Your task to perform on an android device: change text size in settings app Image 0: 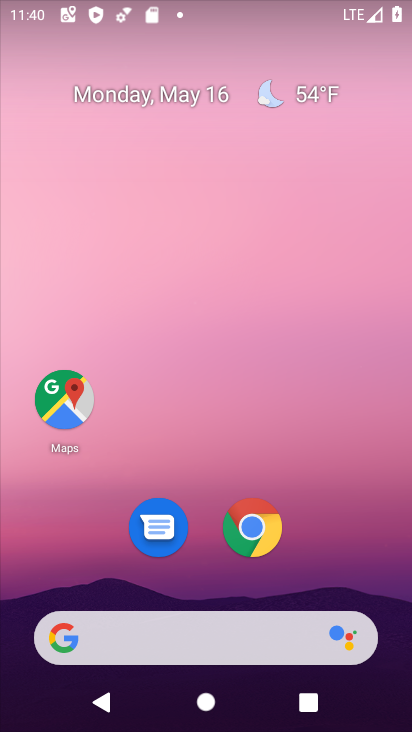
Step 0: drag from (215, 628) to (195, 235)
Your task to perform on an android device: change text size in settings app Image 1: 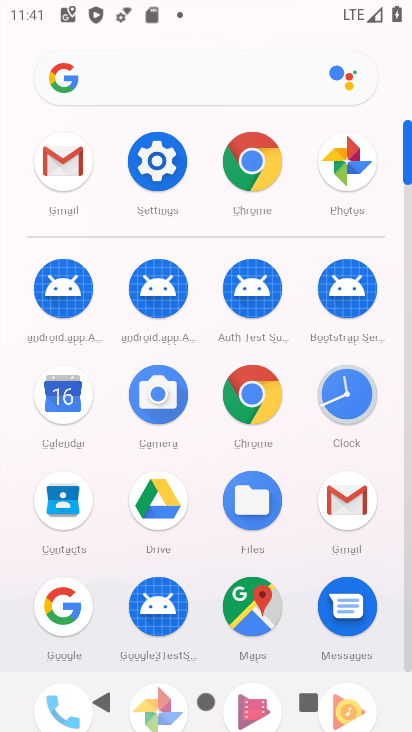
Step 1: click (160, 158)
Your task to perform on an android device: change text size in settings app Image 2: 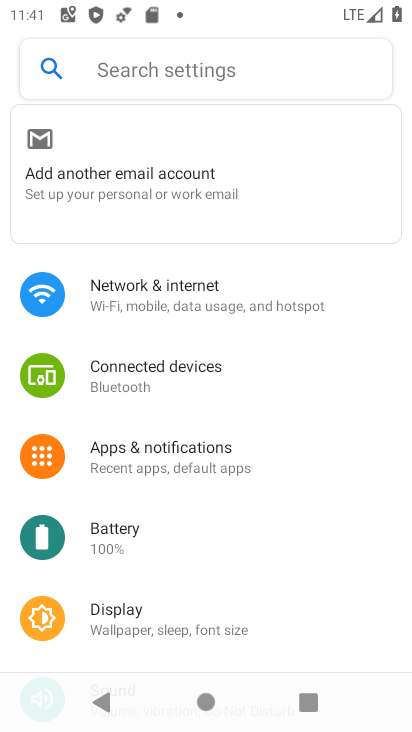
Step 2: click (178, 82)
Your task to perform on an android device: change text size in settings app Image 3: 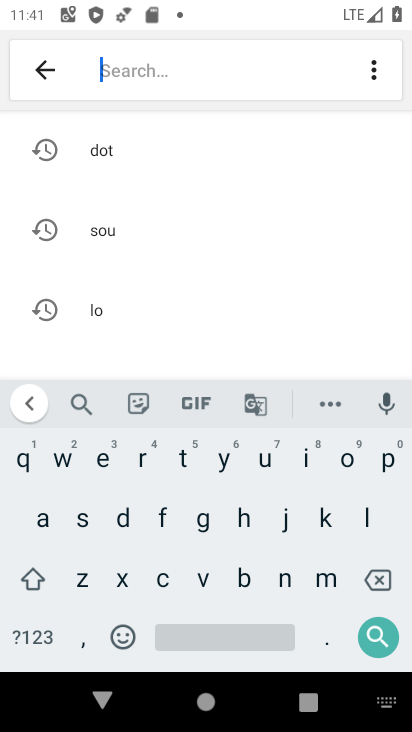
Step 3: click (86, 523)
Your task to perform on an android device: change text size in settings app Image 4: 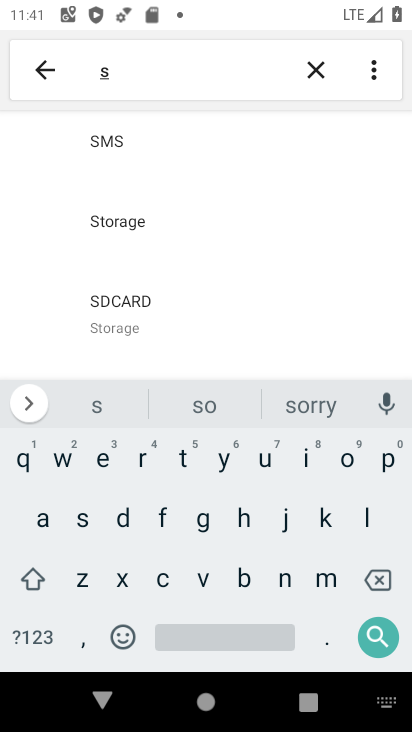
Step 4: click (304, 458)
Your task to perform on an android device: change text size in settings app Image 5: 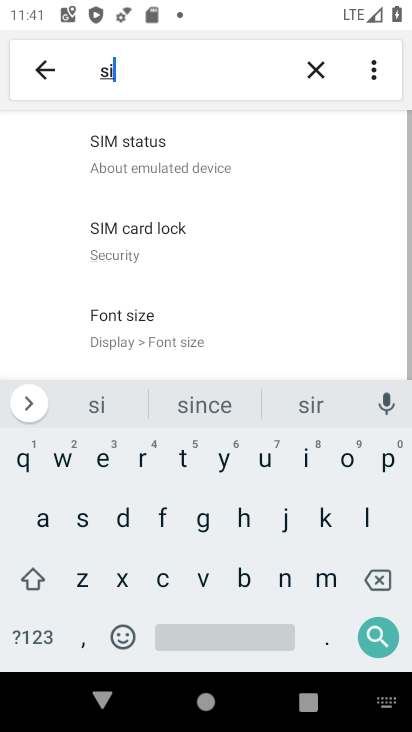
Step 5: click (77, 580)
Your task to perform on an android device: change text size in settings app Image 6: 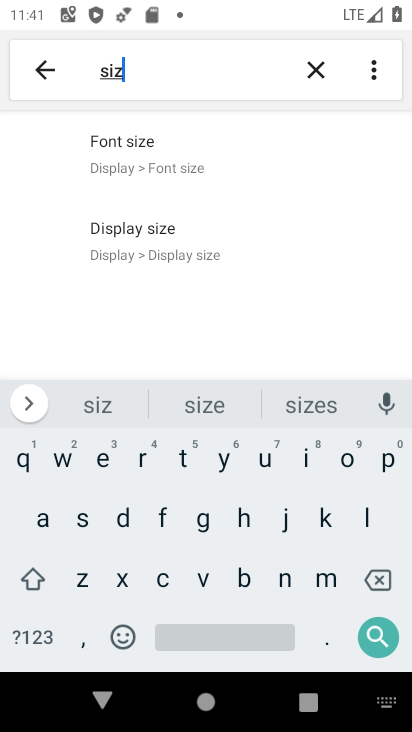
Step 6: click (190, 162)
Your task to perform on an android device: change text size in settings app Image 7: 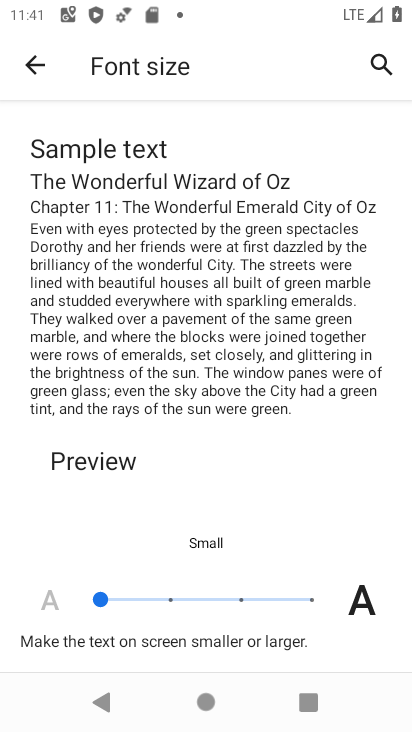
Step 7: click (155, 602)
Your task to perform on an android device: change text size in settings app Image 8: 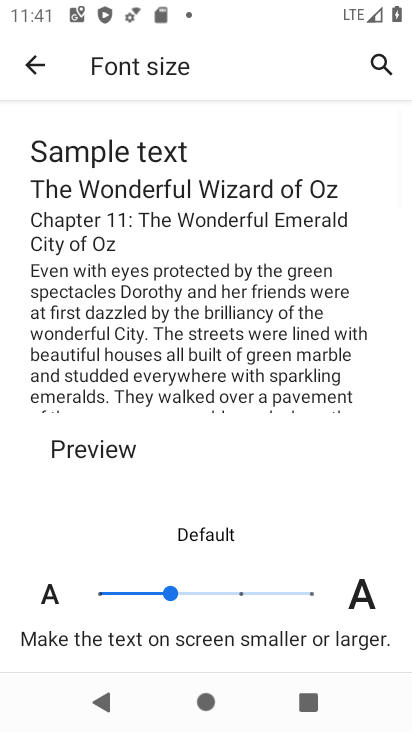
Step 8: task complete